Your task to perform on an android device: Toggle the flashlight Image 0: 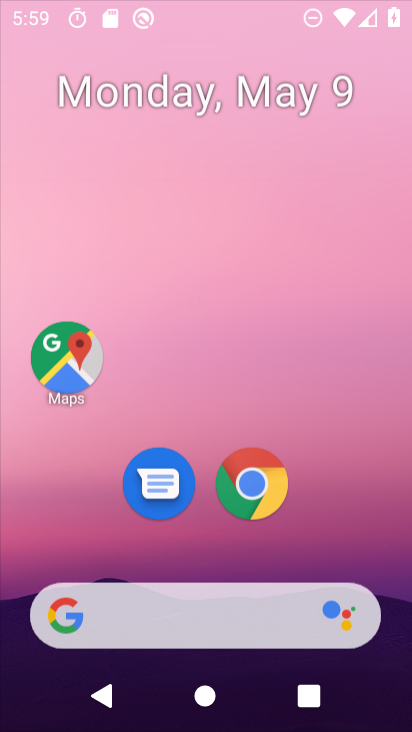
Step 0: click (329, 40)
Your task to perform on an android device: Toggle the flashlight Image 1: 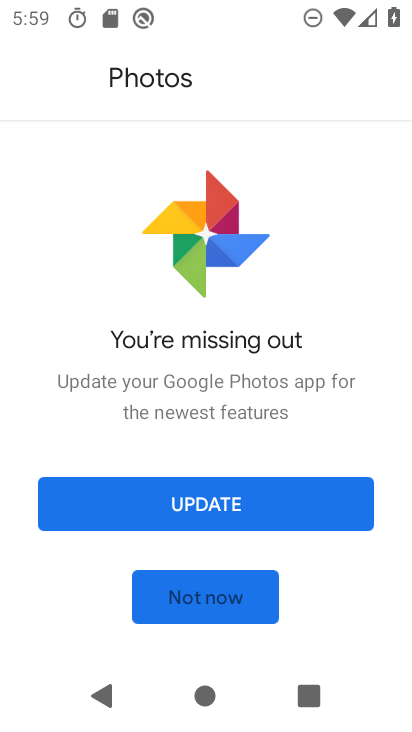
Step 1: task complete